Your task to perform on an android device: turn off location history Image 0: 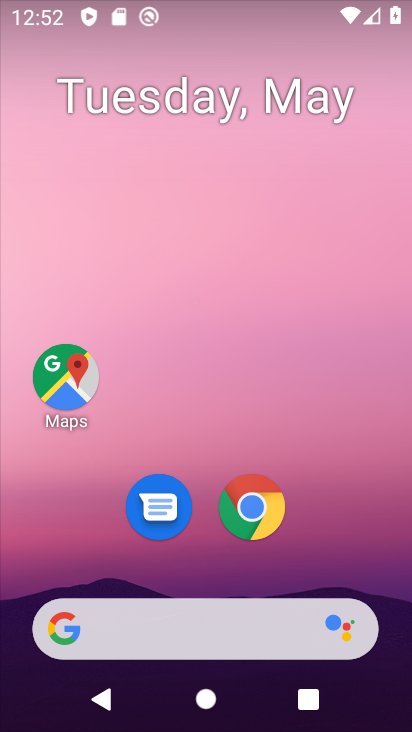
Step 0: click (74, 374)
Your task to perform on an android device: turn off location history Image 1: 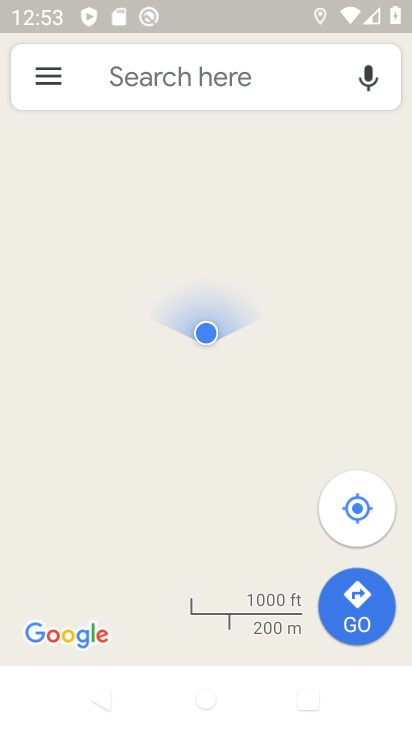
Step 1: click (47, 76)
Your task to perform on an android device: turn off location history Image 2: 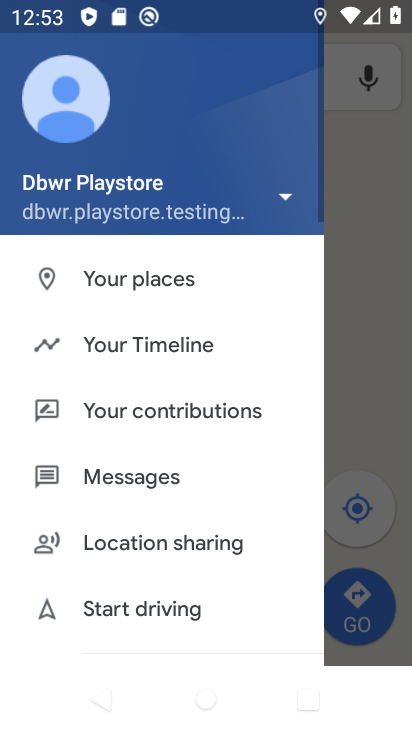
Step 2: click (179, 349)
Your task to perform on an android device: turn off location history Image 3: 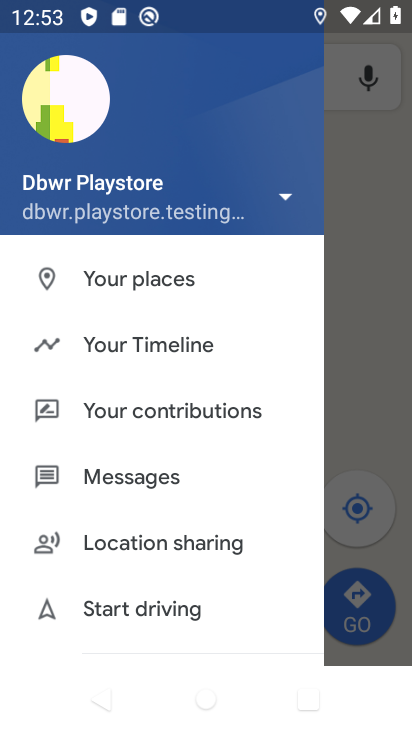
Step 3: click (179, 352)
Your task to perform on an android device: turn off location history Image 4: 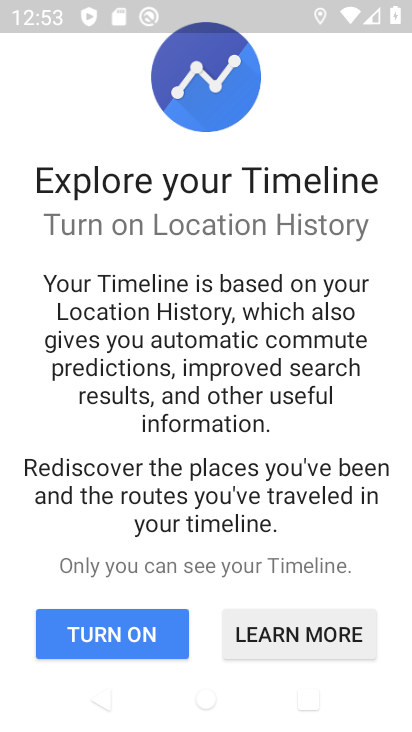
Step 4: drag from (213, 627) to (178, 257)
Your task to perform on an android device: turn off location history Image 5: 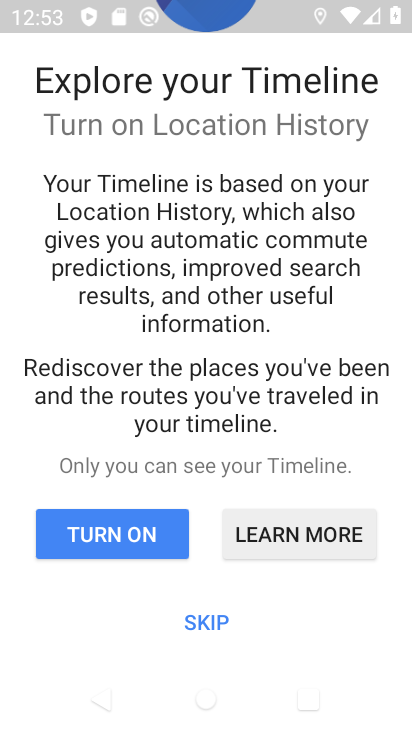
Step 5: click (215, 615)
Your task to perform on an android device: turn off location history Image 6: 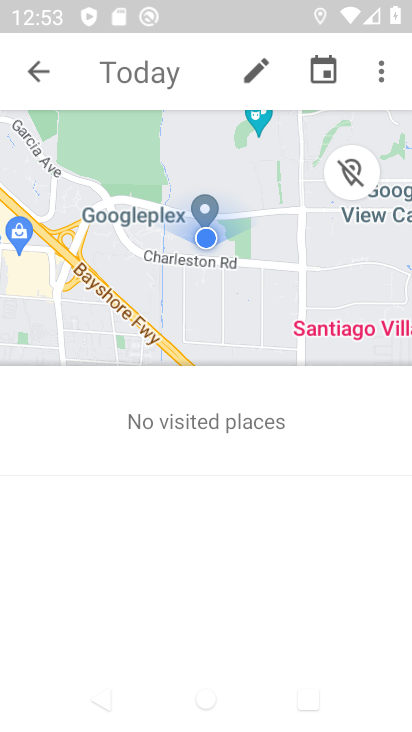
Step 6: click (388, 65)
Your task to perform on an android device: turn off location history Image 7: 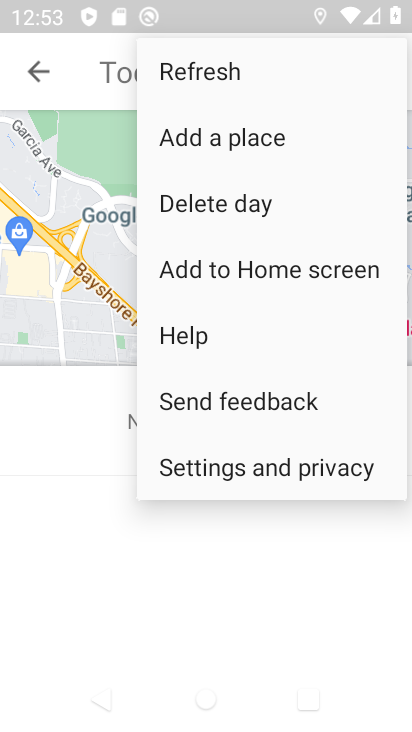
Step 7: click (313, 475)
Your task to perform on an android device: turn off location history Image 8: 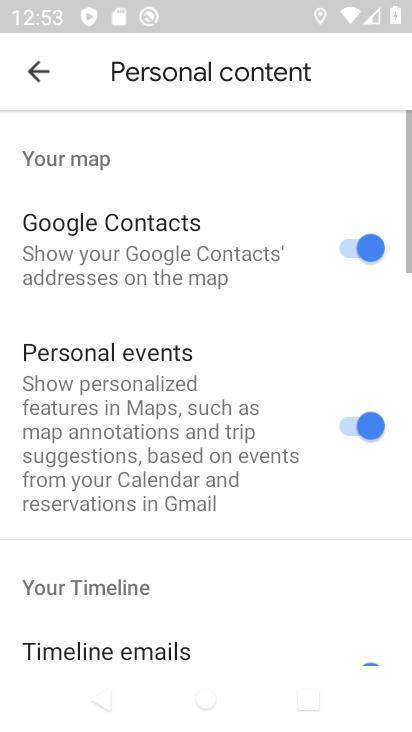
Step 8: task complete